Your task to perform on an android device: see creations saved in the google photos Image 0: 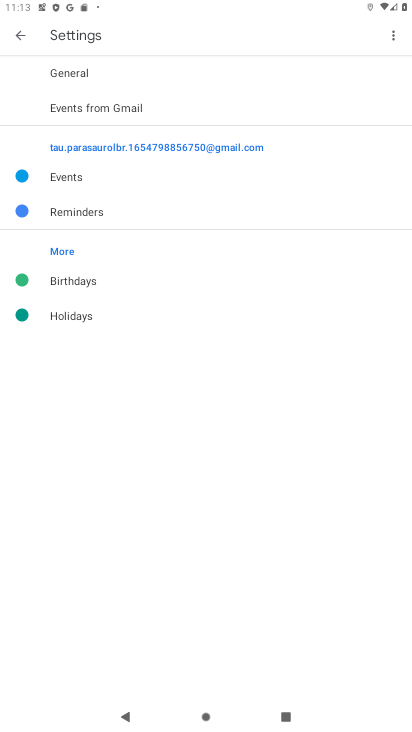
Step 0: press home button
Your task to perform on an android device: see creations saved in the google photos Image 1: 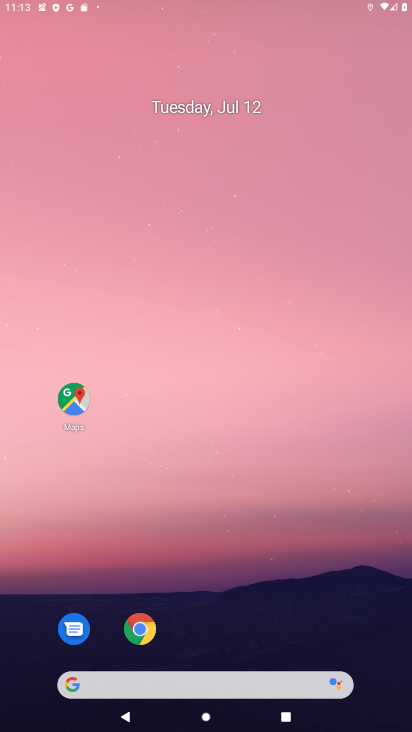
Step 1: drag from (214, 621) to (214, 198)
Your task to perform on an android device: see creations saved in the google photos Image 2: 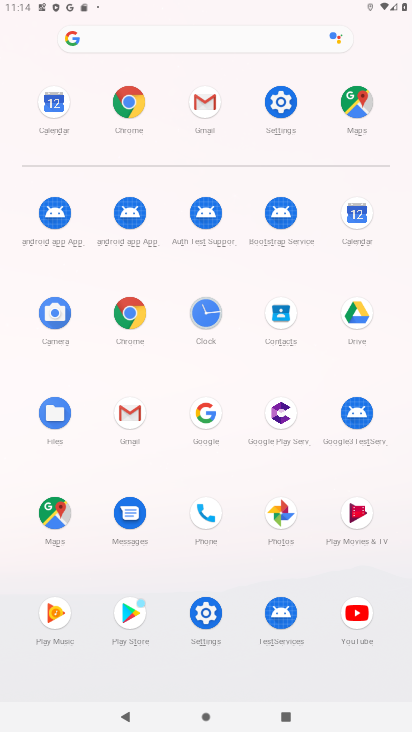
Step 2: click (266, 509)
Your task to perform on an android device: see creations saved in the google photos Image 3: 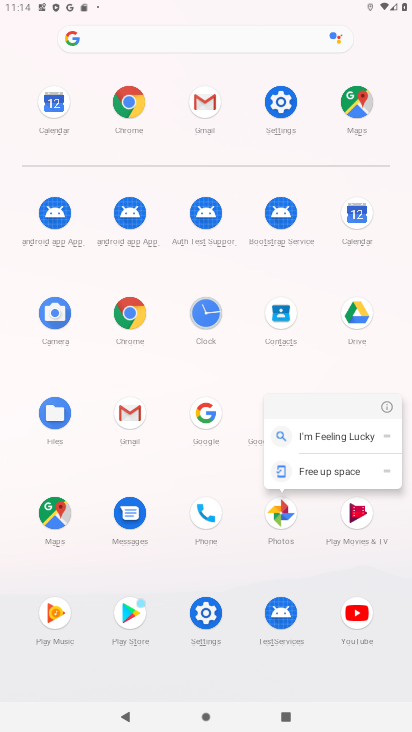
Step 3: click (285, 509)
Your task to perform on an android device: see creations saved in the google photos Image 4: 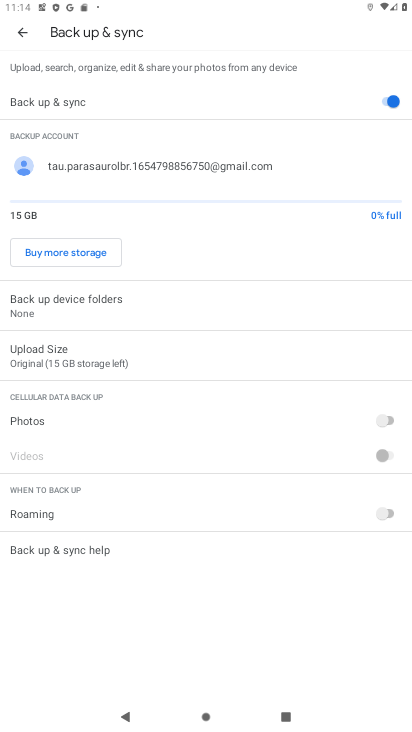
Step 4: click (23, 32)
Your task to perform on an android device: see creations saved in the google photos Image 5: 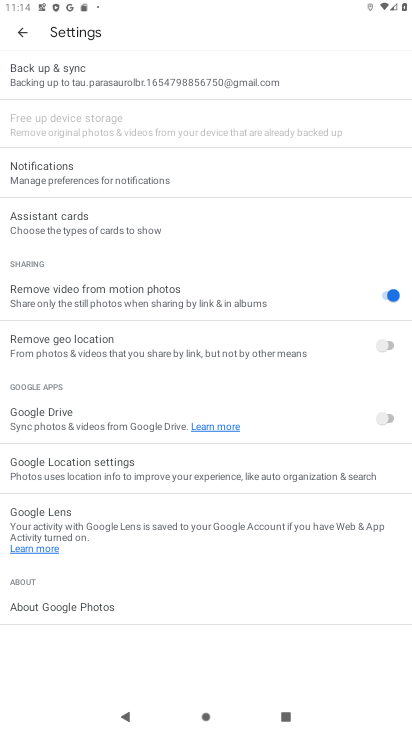
Step 5: click (25, 39)
Your task to perform on an android device: see creations saved in the google photos Image 6: 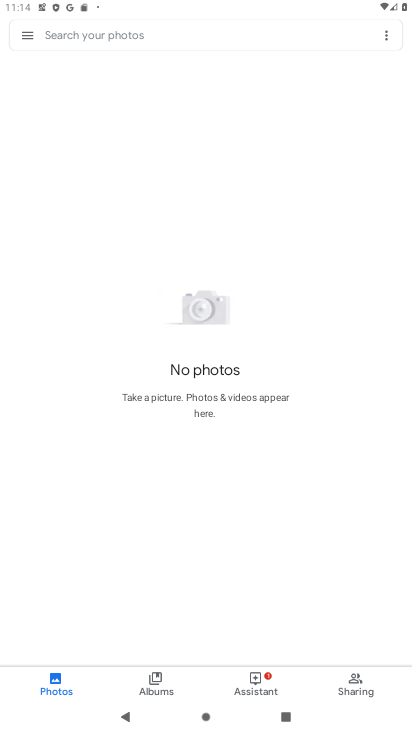
Step 6: click (387, 32)
Your task to perform on an android device: see creations saved in the google photos Image 7: 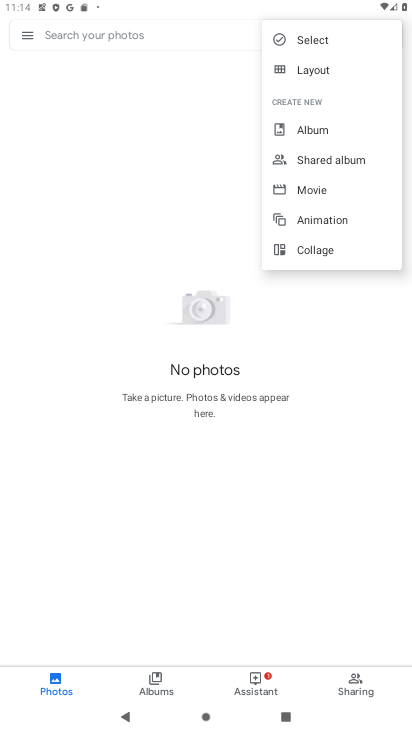
Step 7: click (188, 128)
Your task to perform on an android device: see creations saved in the google photos Image 8: 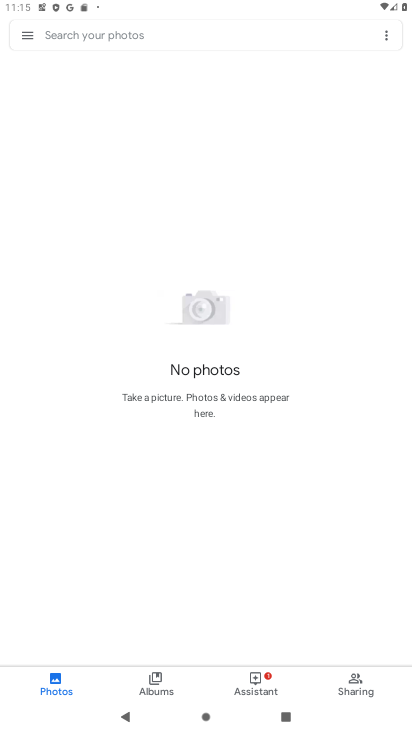
Step 8: click (156, 671)
Your task to perform on an android device: see creations saved in the google photos Image 9: 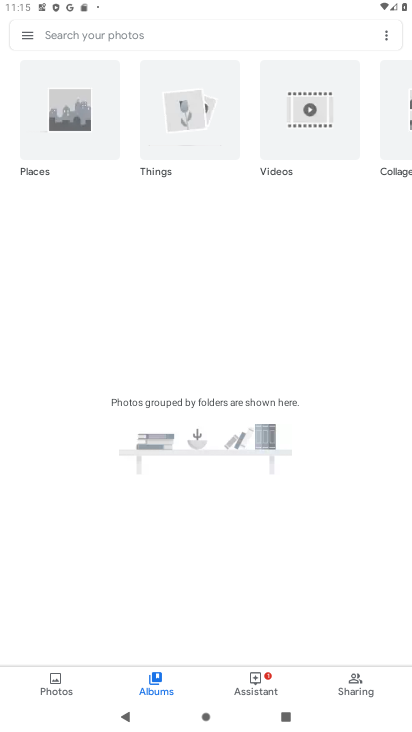
Step 9: task complete